Your task to perform on an android device: turn on improve location accuracy Image 0: 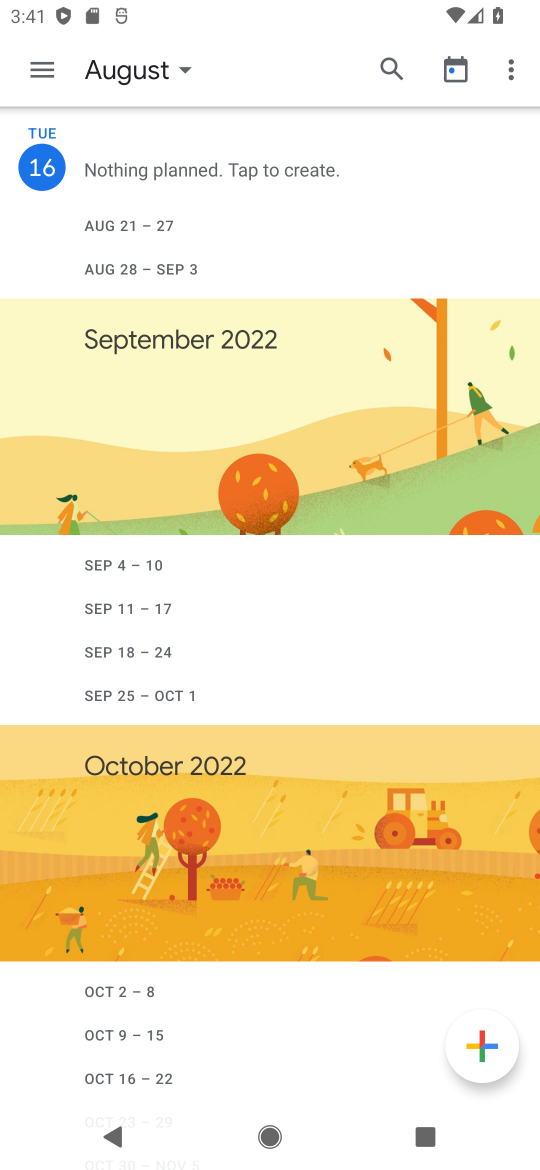
Step 0: press home button
Your task to perform on an android device: turn on improve location accuracy Image 1: 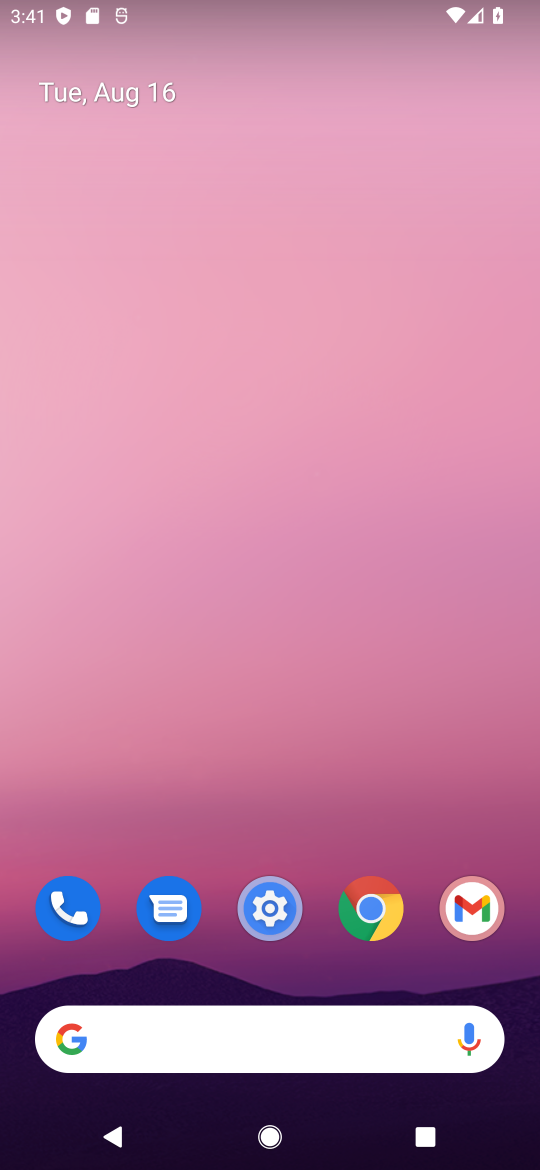
Step 1: drag from (313, 851) to (348, 27)
Your task to perform on an android device: turn on improve location accuracy Image 2: 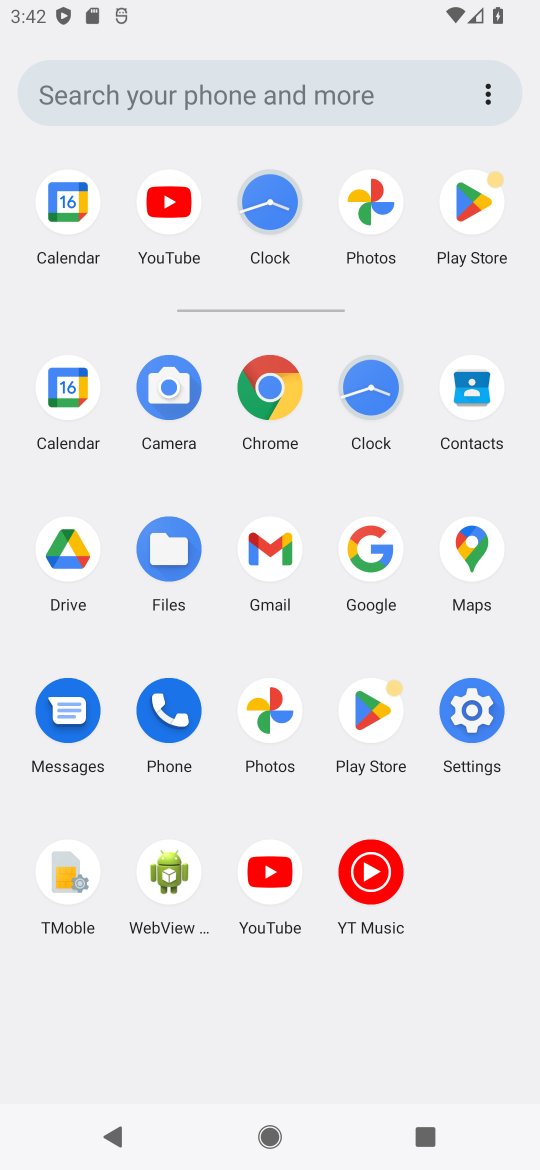
Step 2: click (466, 699)
Your task to perform on an android device: turn on improve location accuracy Image 3: 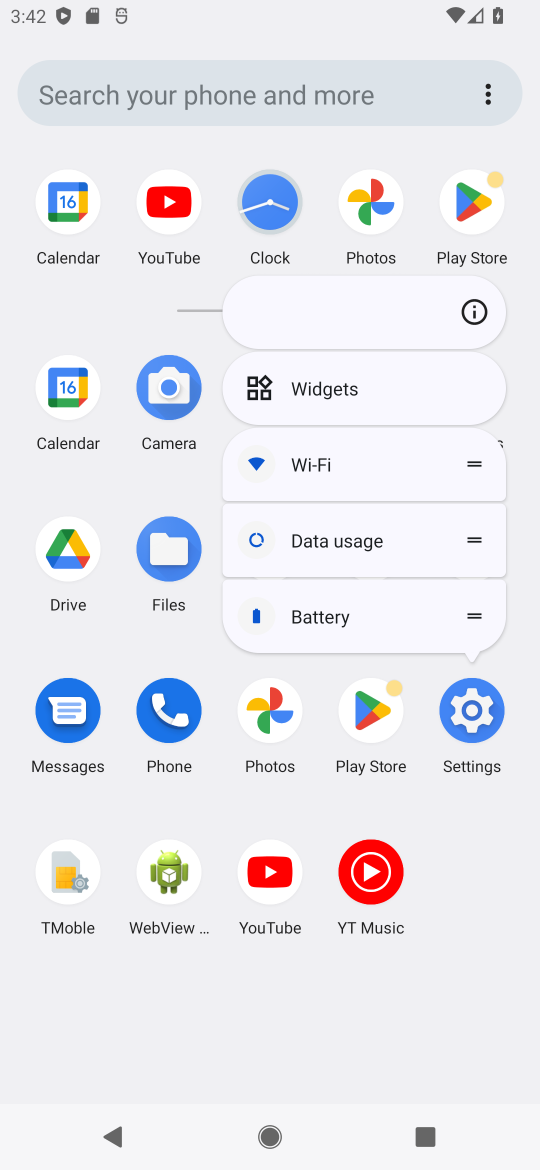
Step 3: click (469, 704)
Your task to perform on an android device: turn on improve location accuracy Image 4: 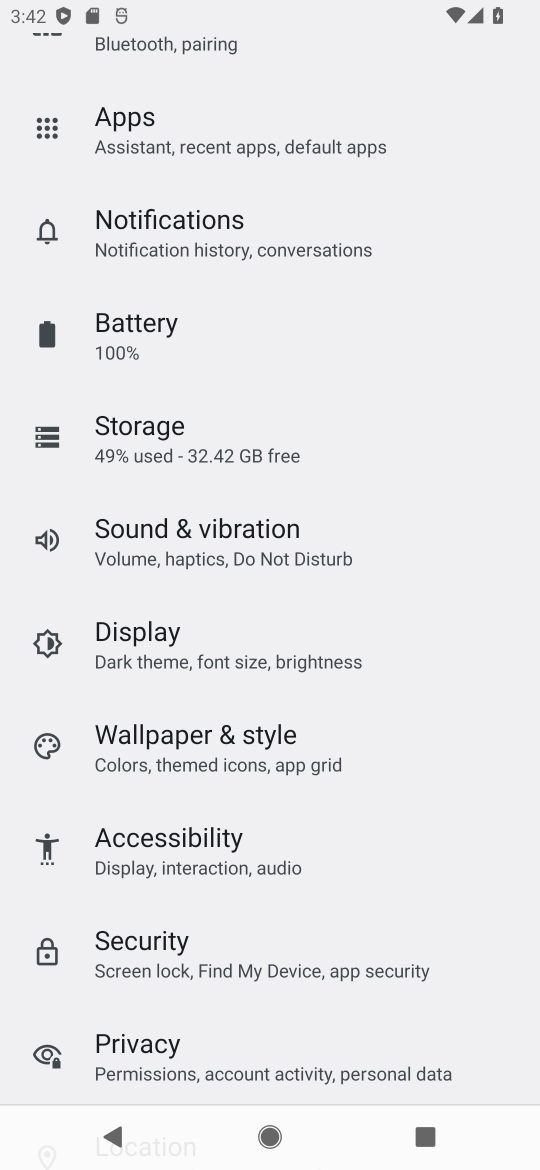
Step 4: drag from (255, 1028) to (282, 405)
Your task to perform on an android device: turn on improve location accuracy Image 5: 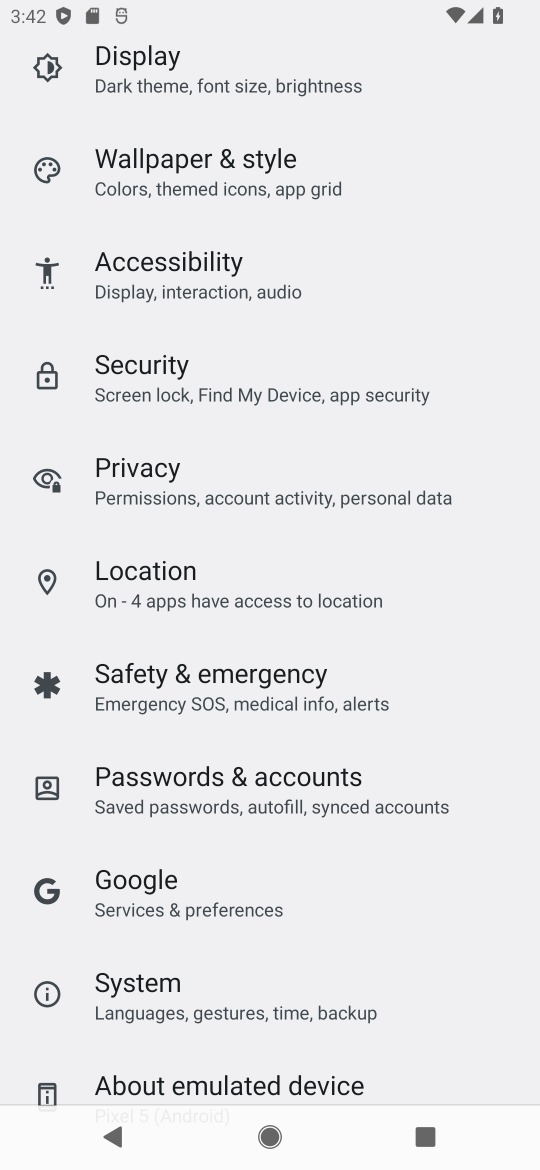
Step 5: click (210, 574)
Your task to perform on an android device: turn on improve location accuracy Image 6: 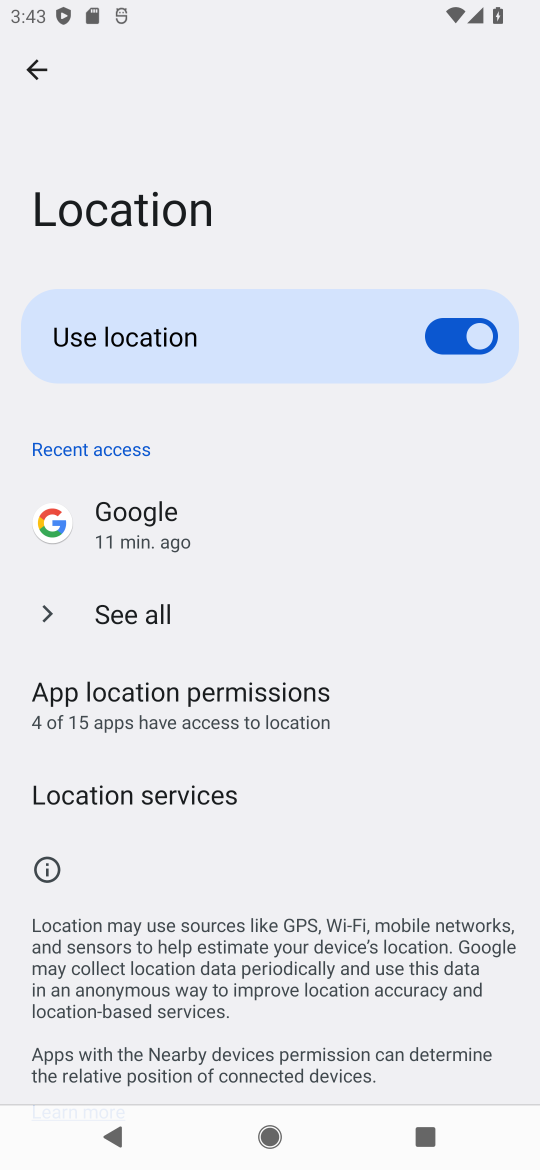
Step 6: click (159, 791)
Your task to perform on an android device: turn on improve location accuracy Image 7: 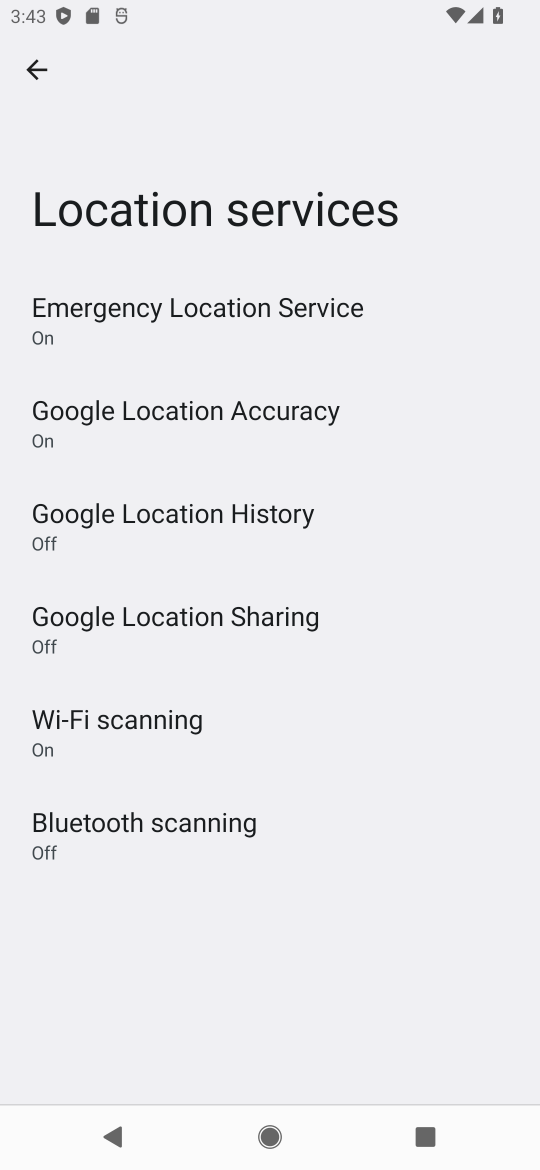
Step 7: click (221, 417)
Your task to perform on an android device: turn on improve location accuracy Image 8: 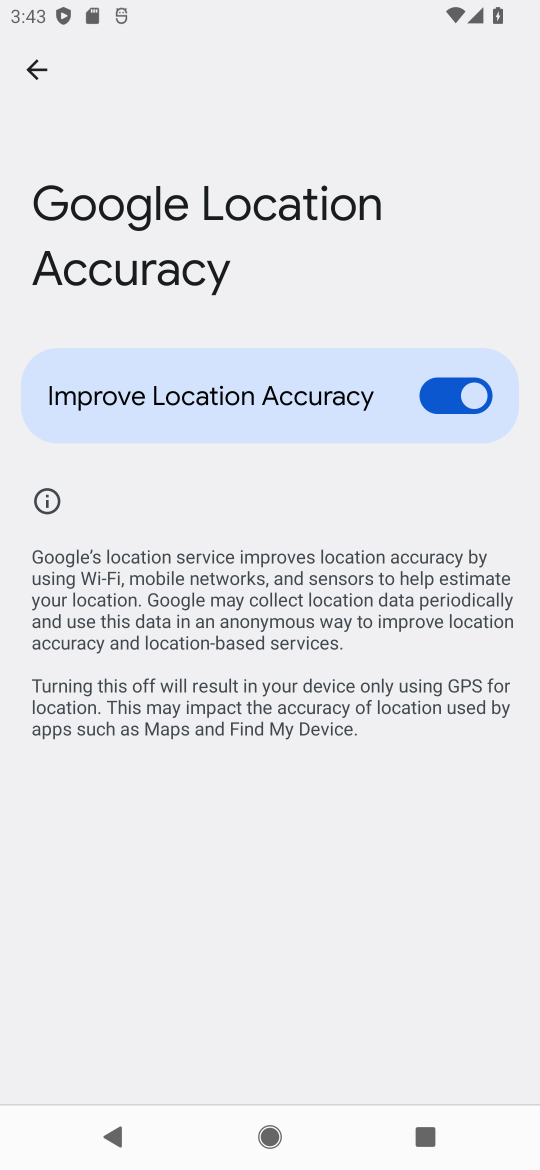
Step 8: task complete